Your task to perform on an android device: Go to Reddit.com Image 0: 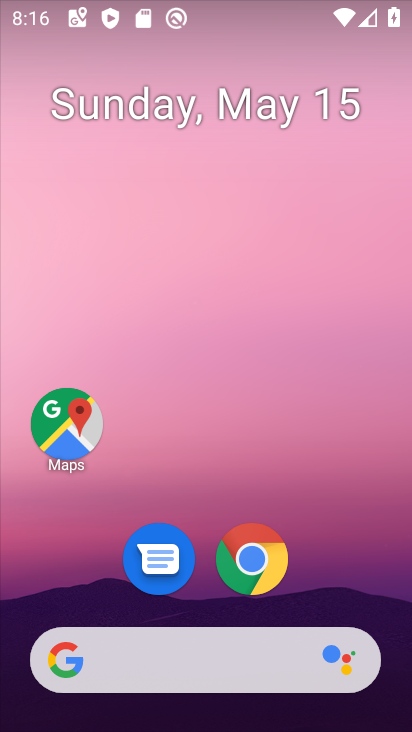
Step 0: click (266, 560)
Your task to perform on an android device: Go to Reddit.com Image 1: 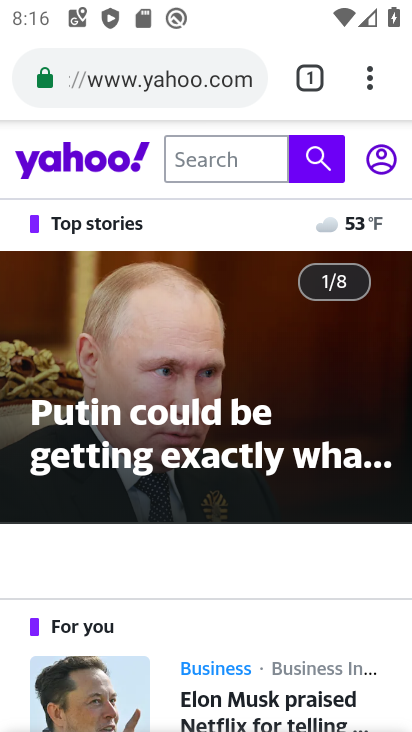
Step 1: click (188, 89)
Your task to perform on an android device: Go to Reddit.com Image 2: 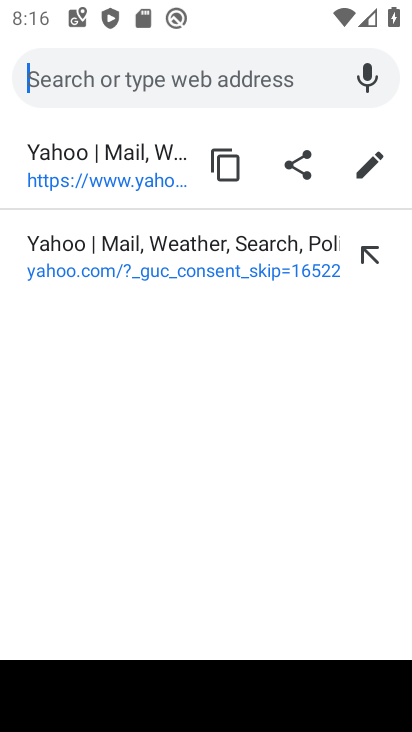
Step 2: type "reddit"
Your task to perform on an android device: Go to Reddit.com Image 3: 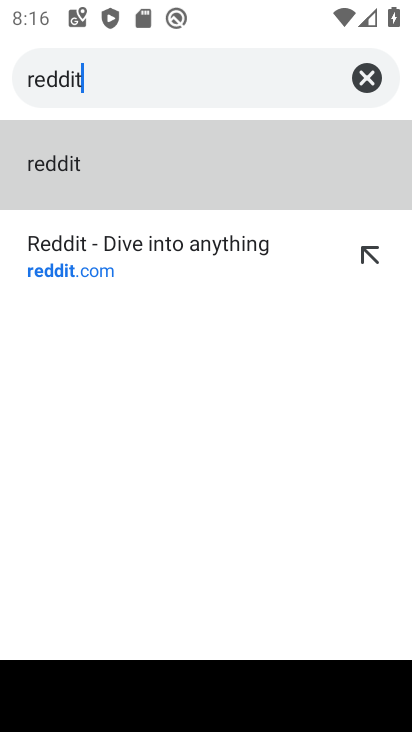
Step 3: click (170, 250)
Your task to perform on an android device: Go to Reddit.com Image 4: 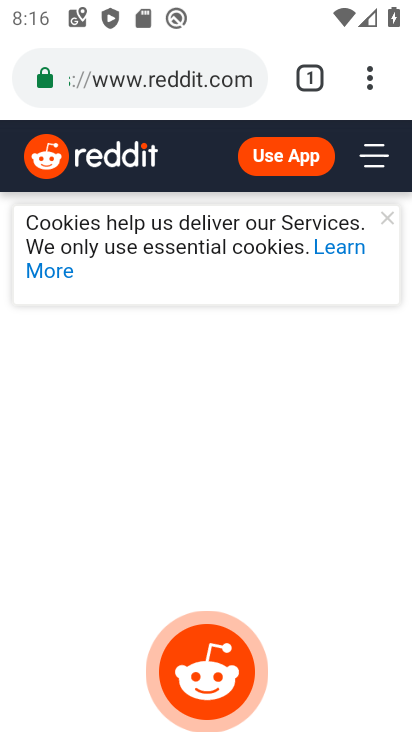
Step 4: task complete